Your task to perform on an android device: Search for Mexican restaurants on Maps Image 0: 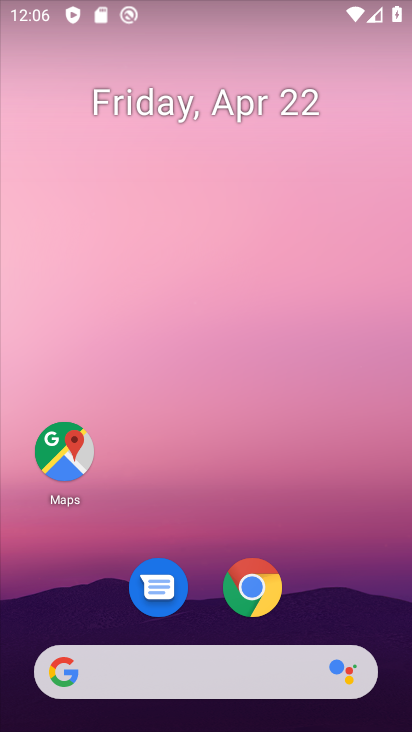
Step 0: click (67, 436)
Your task to perform on an android device: Search for Mexican restaurants on Maps Image 1: 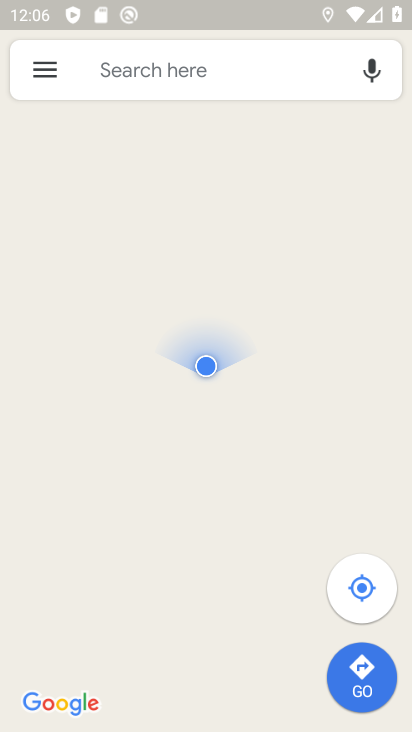
Step 1: click (175, 81)
Your task to perform on an android device: Search for Mexican restaurants on Maps Image 2: 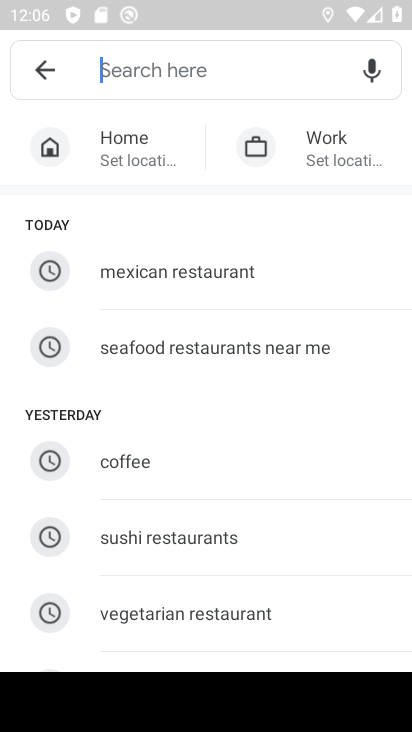
Step 2: type "Mexican restaurants"
Your task to perform on an android device: Search for Mexican restaurants on Maps Image 3: 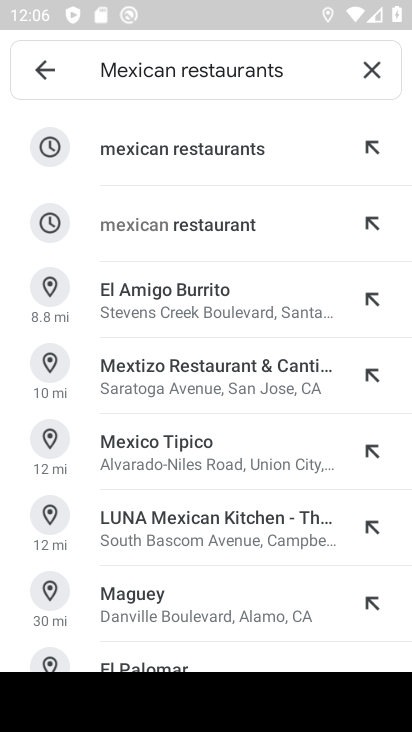
Step 3: click (150, 145)
Your task to perform on an android device: Search for Mexican restaurants on Maps Image 4: 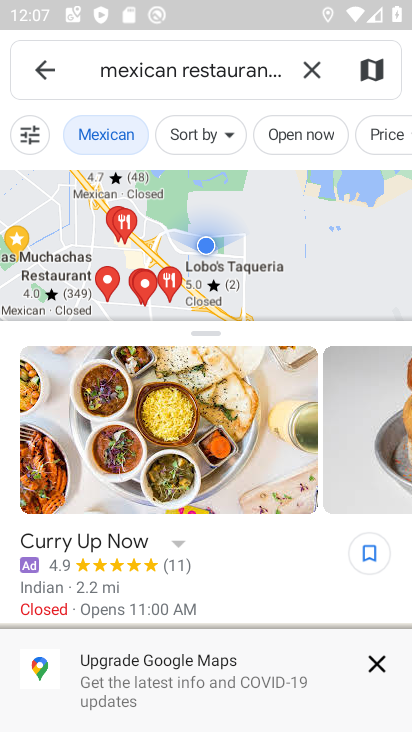
Step 4: click (372, 666)
Your task to perform on an android device: Search for Mexican restaurants on Maps Image 5: 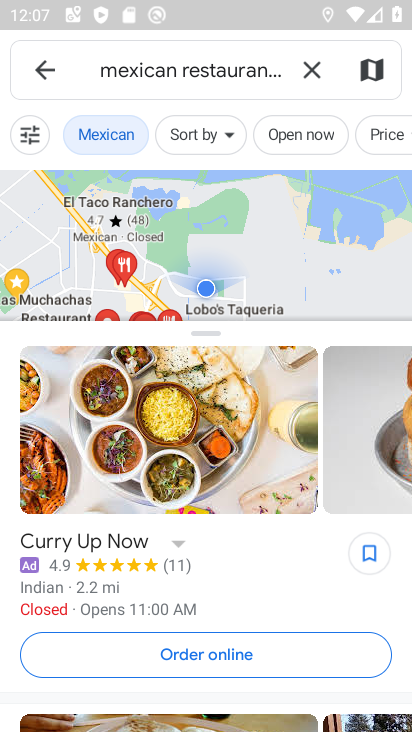
Step 5: task complete